Your task to perform on an android device: open chrome and create a bookmark for the current page Image 0: 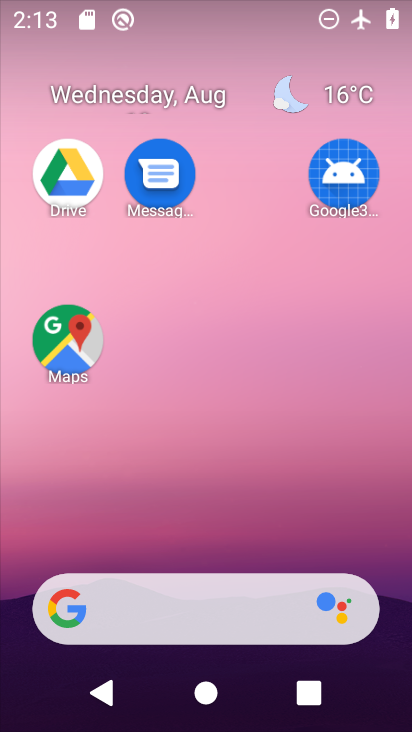
Step 0: drag from (191, 533) to (238, 16)
Your task to perform on an android device: open chrome and create a bookmark for the current page Image 1: 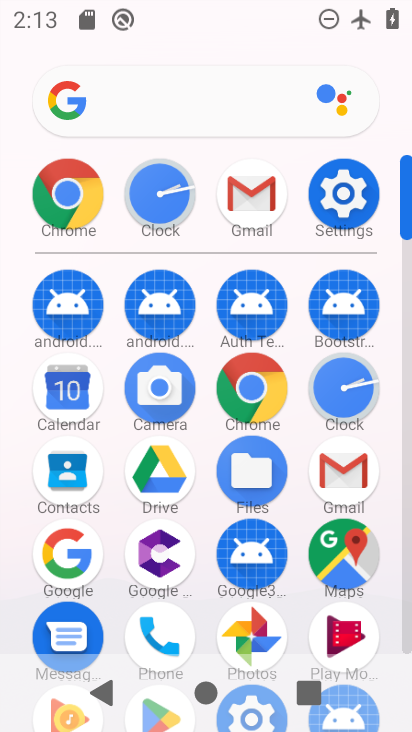
Step 1: click (83, 174)
Your task to perform on an android device: open chrome and create a bookmark for the current page Image 2: 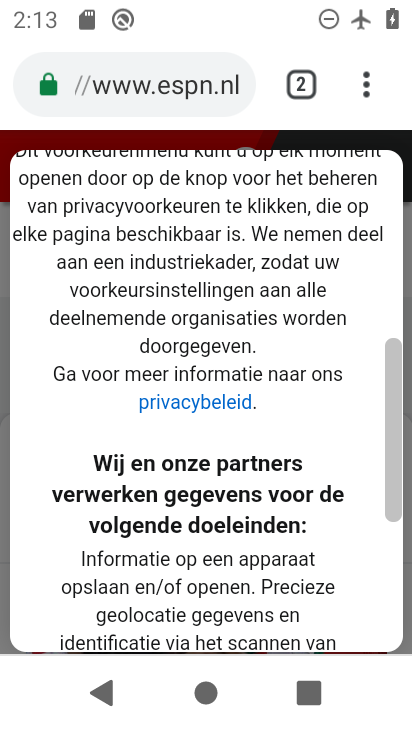
Step 2: click (379, 66)
Your task to perform on an android device: open chrome and create a bookmark for the current page Image 3: 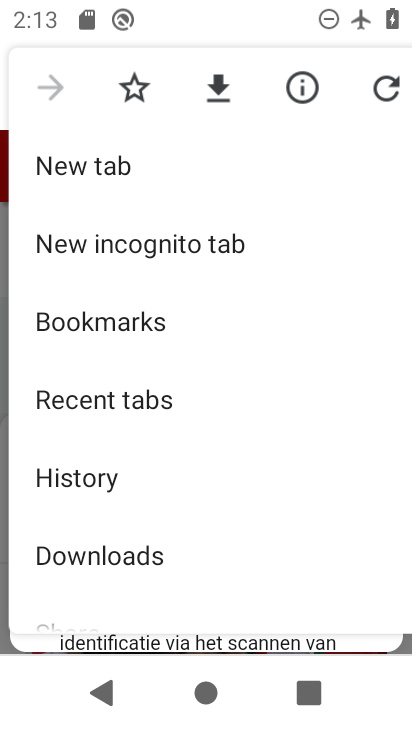
Step 3: click (136, 82)
Your task to perform on an android device: open chrome and create a bookmark for the current page Image 4: 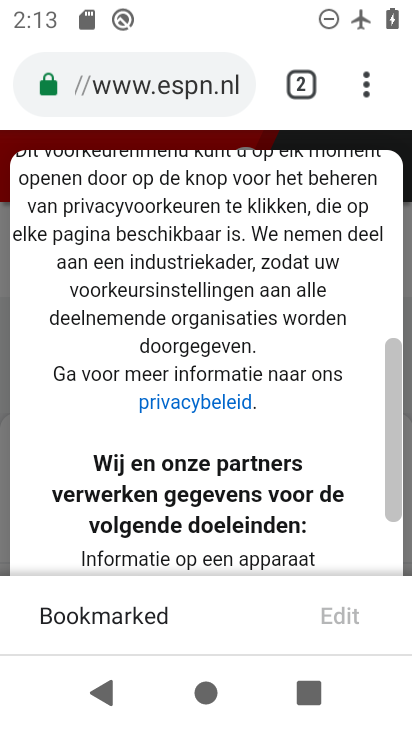
Step 4: task complete